Your task to perform on an android device: Open Google Image 0: 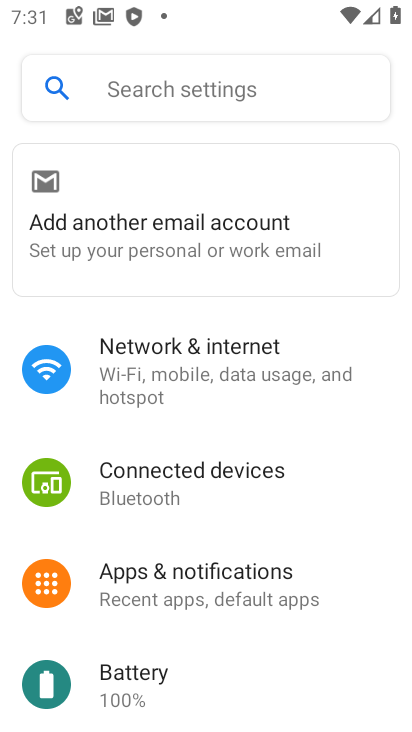
Step 0: press home button
Your task to perform on an android device: Open Google Image 1: 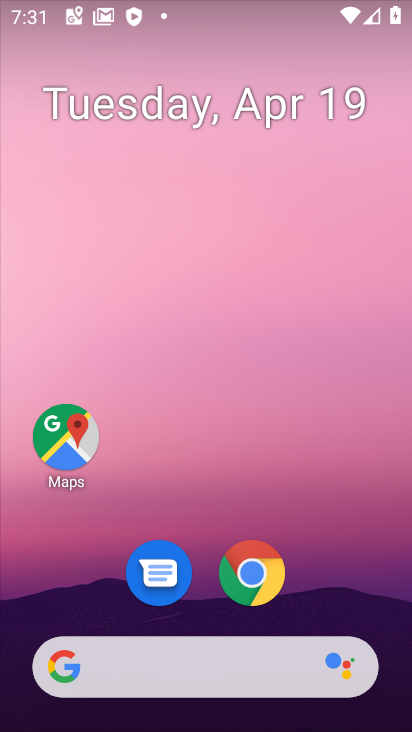
Step 1: drag from (367, 599) to (309, 92)
Your task to perform on an android device: Open Google Image 2: 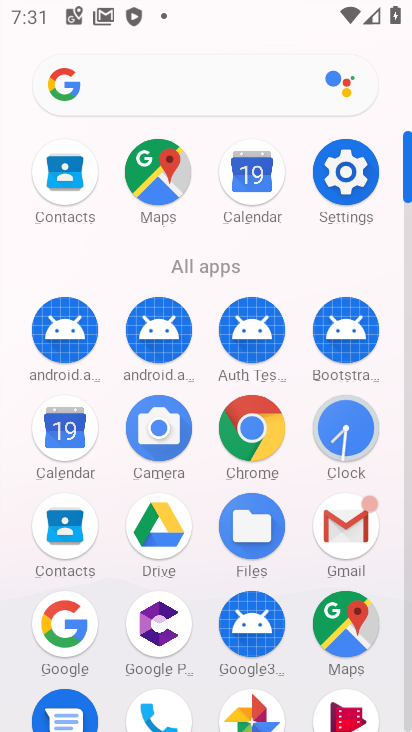
Step 2: click (59, 629)
Your task to perform on an android device: Open Google Image 3: 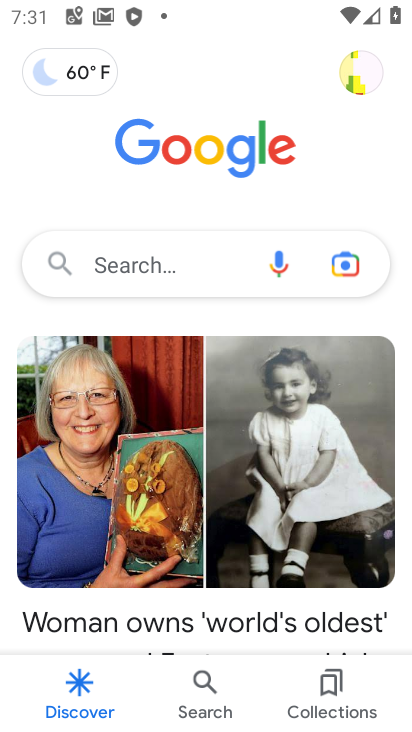
Step 3: task complete